Your task to perform on an android device: search for starred emails in the gmail app Image 0: 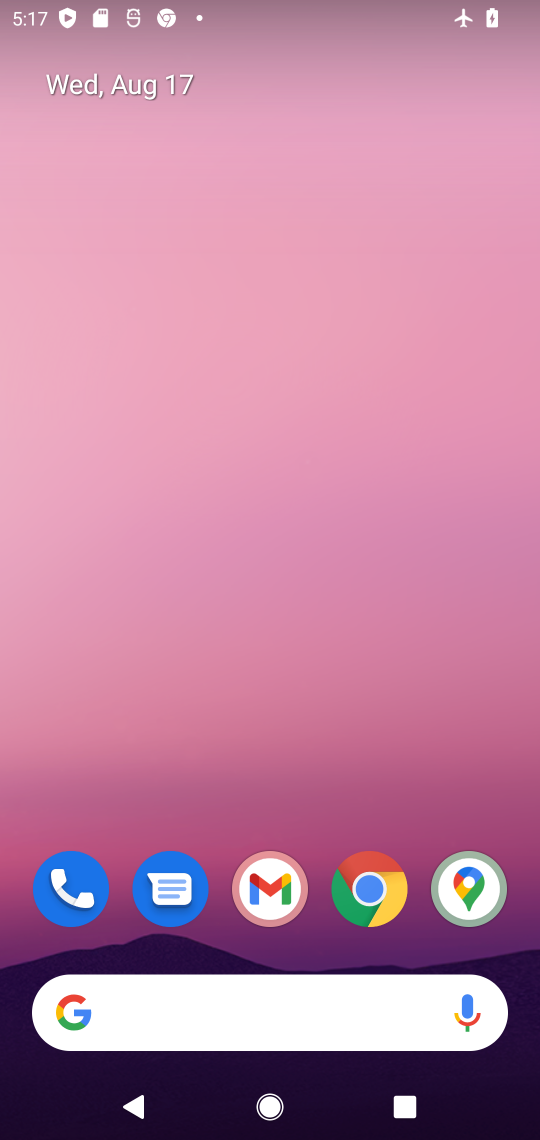
Step 0: click (274, 889)
Your task to perform on an android device: search for starred emails in the gmail app Image 1: 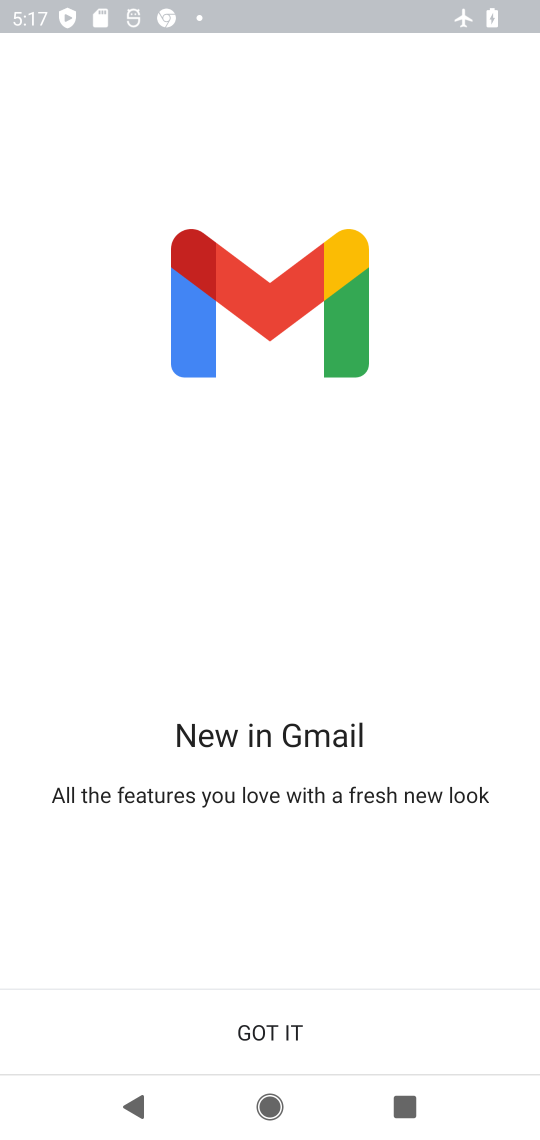
Step 1: click (268, 1039)
Your task to perform on an android device: search for starred emails in the gmail app Image 2: 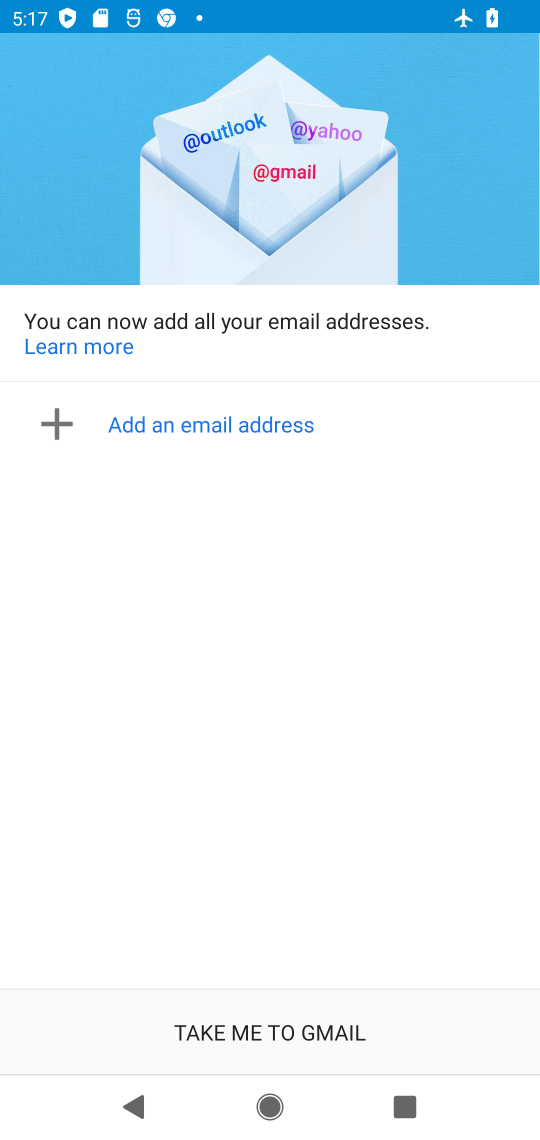
Step 2: click (268, 1039)
Your task to perform on an android device: search for starred emails in the gmail app Image 3: 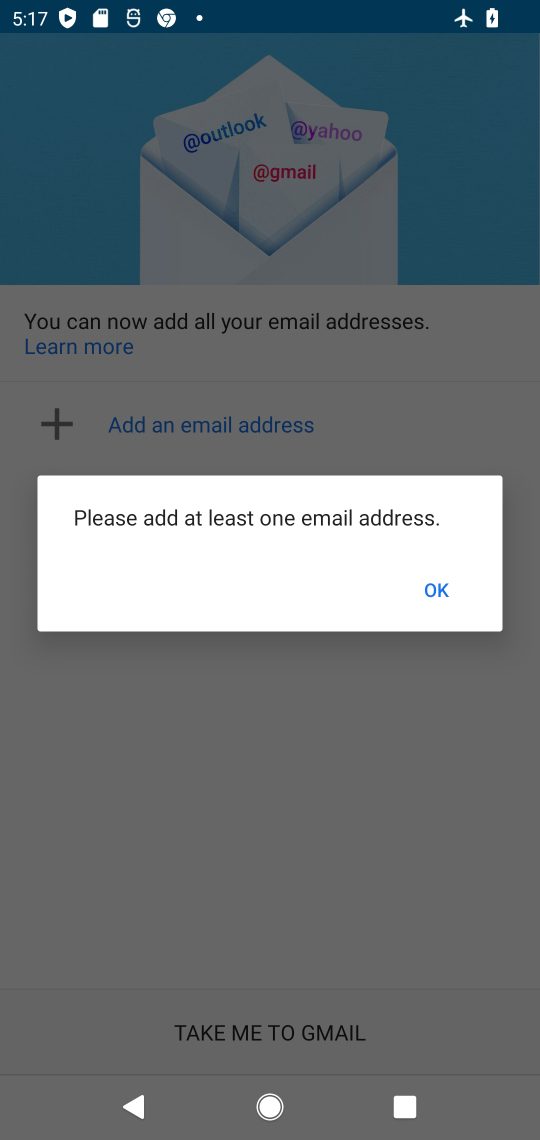
Step 3: task complete